Your task to perform on an android device: check storage Image 0: 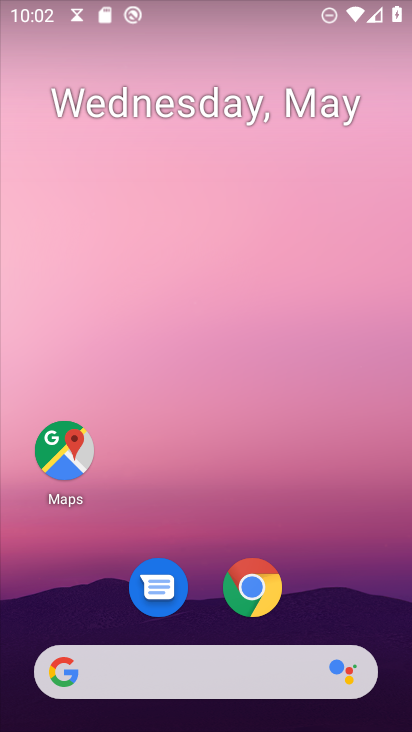
Step 0: drag from (217, 727) to (223, 172)
Your task to perform on an android device: check storage Image 1: 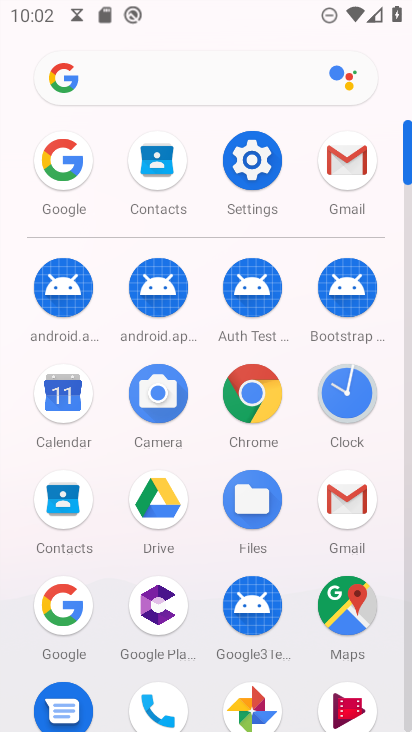
Step 1: click (253, 153)
Your task to perform on an android device: check storage Image 2: 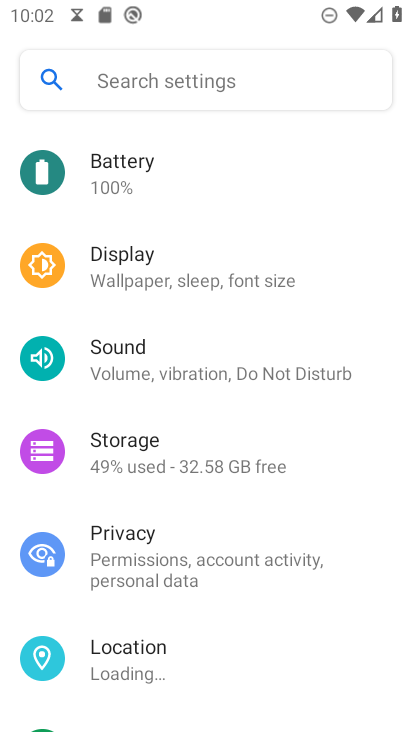
Step 2: click (148, 459)
Your task to perform on an android device: check storage Image 3: 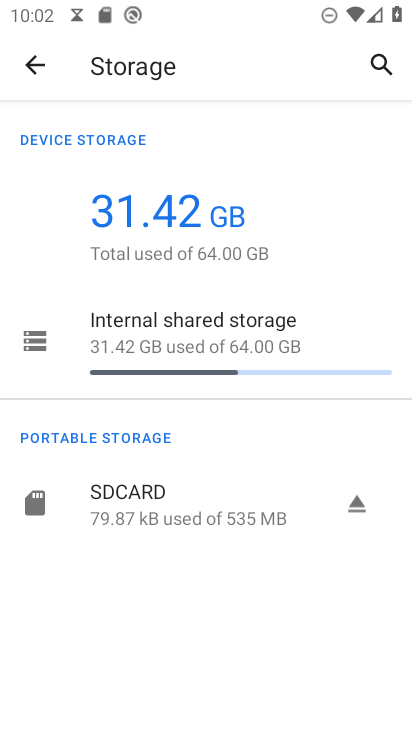
Step 3: task complete